Your task to perform on an android device: open app "Skype" Image 0: 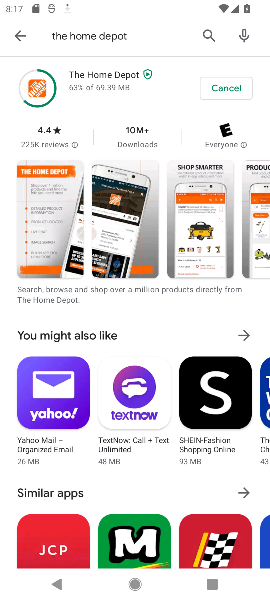
Step 0: task complete